Your task to perform on an android device: Turn on the flashlight Image 0: 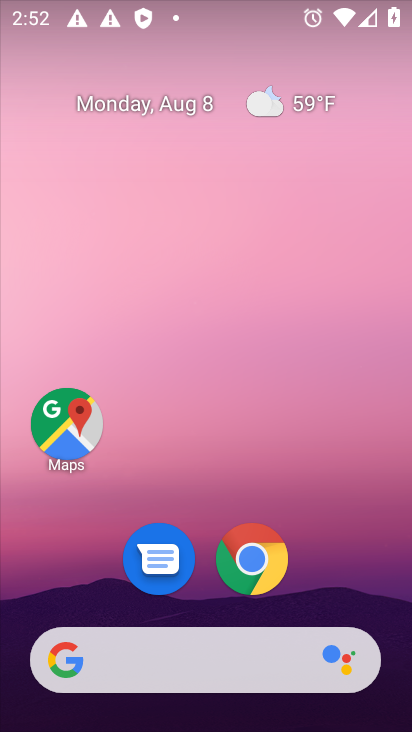
Step 0: drag from (252, 653) to (289, 186)
Your task to perform on an android device: Turn on the flashlight Image 1: 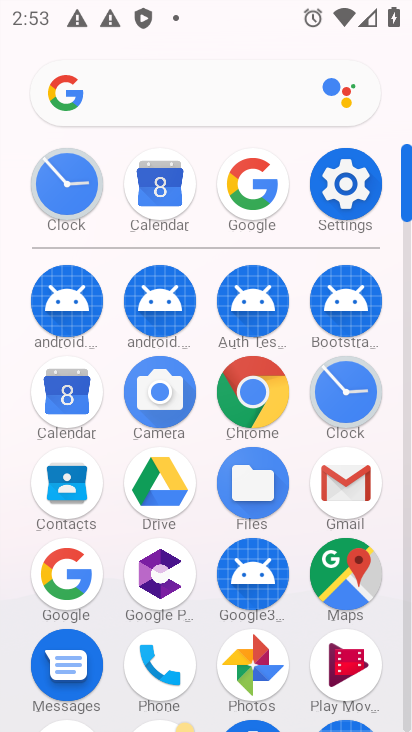
Step 1: click (345, 183)
Your task to perform on an android device: Turn on the flashlight Image 2: 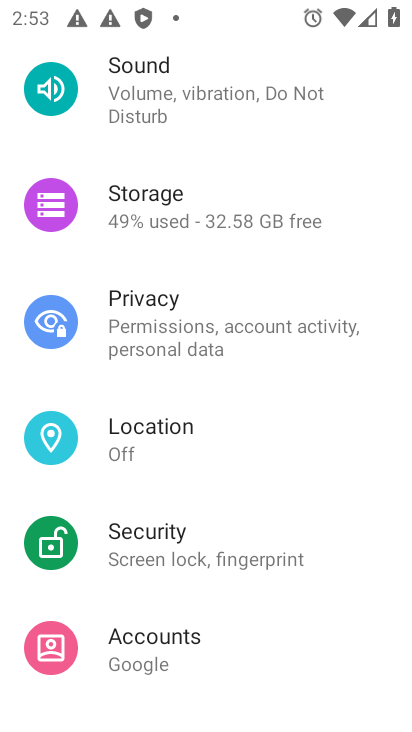
Step 2: drag from (261, 182) to (221, 649)
Your task to perform on an android device: Turn on the flashlight Image 3: 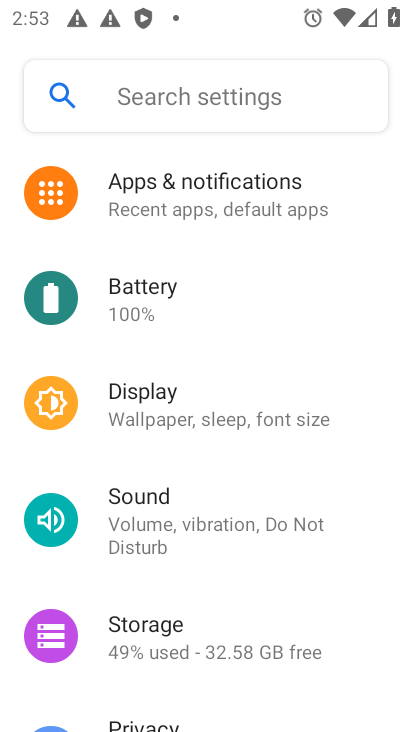
Step 3: drag from (233, 305) to (230, 483)
Your task to perform on an android device: Turn on the flashlight Image 4: 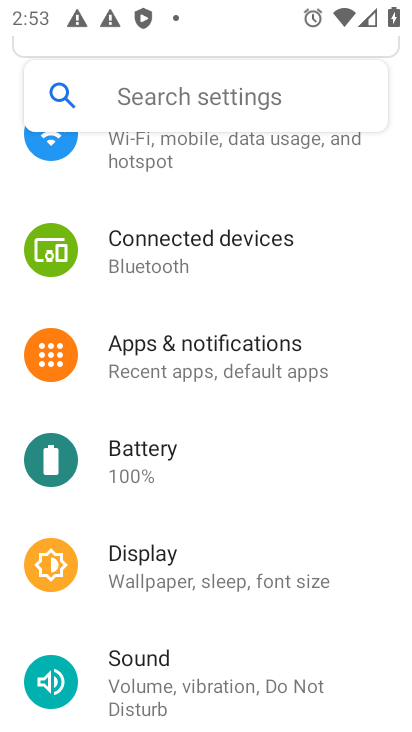
Step 4: drag from (224, 301) to (233, 499)
Your task to perform on an android device: Turn on the flashlight Image 5: 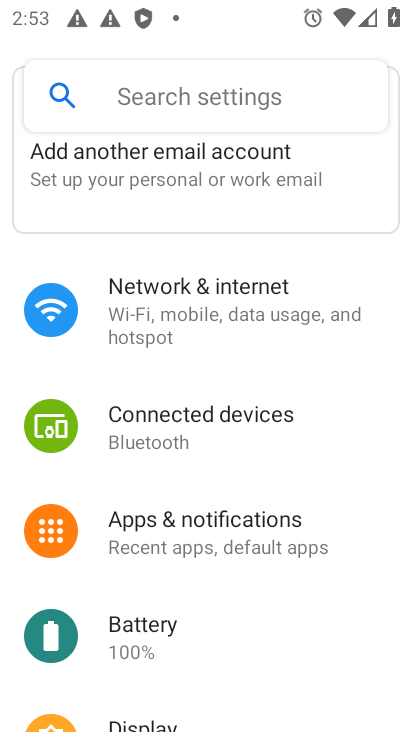
Step 5: drag from (192, 616) to (285, 459)
Your task to perform on an android device: Turn on the flashlight Image 6: 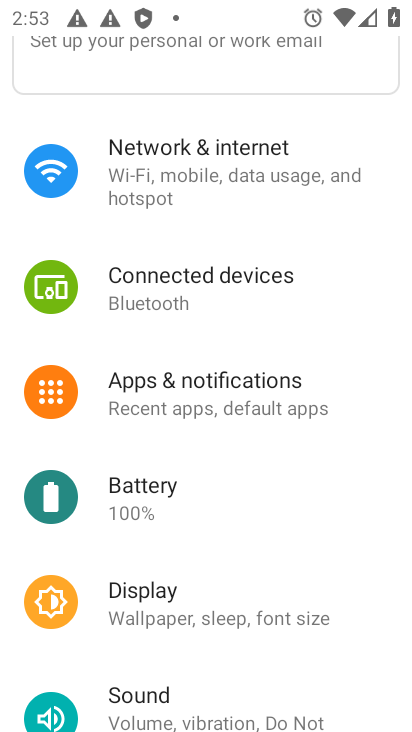
Step 6: click (238, 631)
Your task to perform on an android device: Turn on the flashlight Image 7: 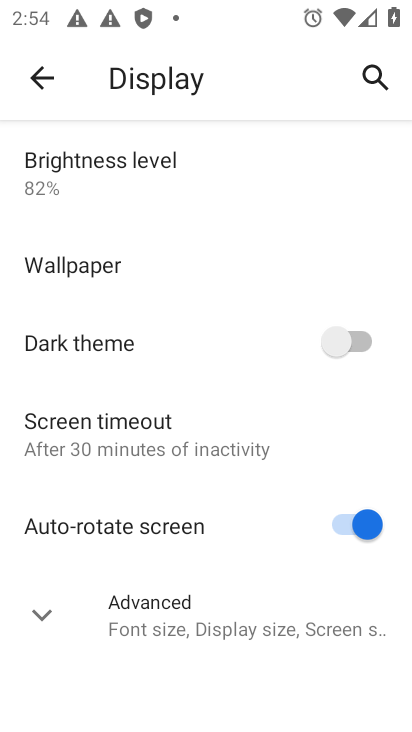
Step 7: click (220, 636)
Your task to perform on an android device: Turn on the flashlight Image 8: 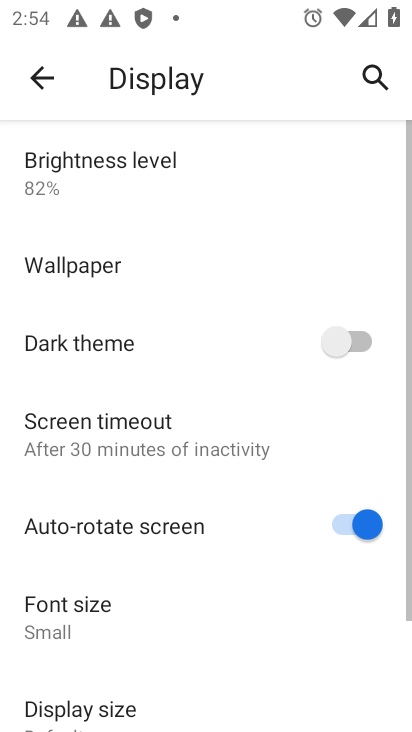
Step 8: task complete